Your task to perform on an android device: Is it going to rain tomorrow? Image 0: 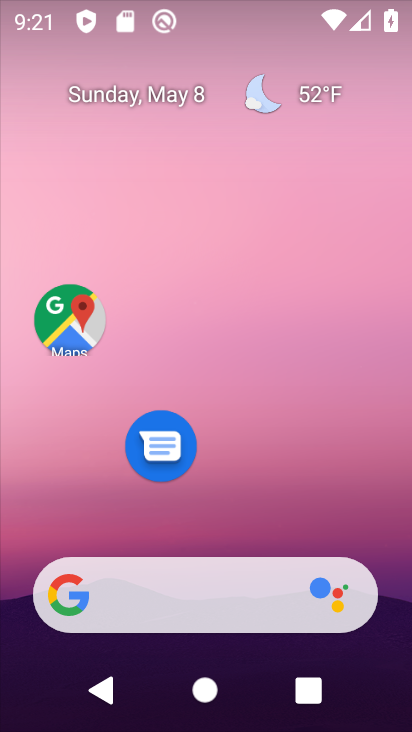
Step 0: drag from (325, 502) to (319, 76)
Your task to perform on an android device: Is it going to rain tomorrow? Image 1: 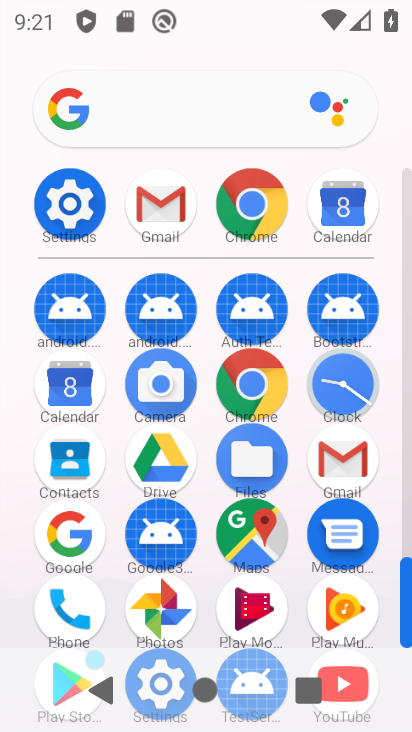
Step 1: drag from (404, 610) to (402, 418)
Your task to perform on an android device: Is it going to rain tomorrow? Image 2: 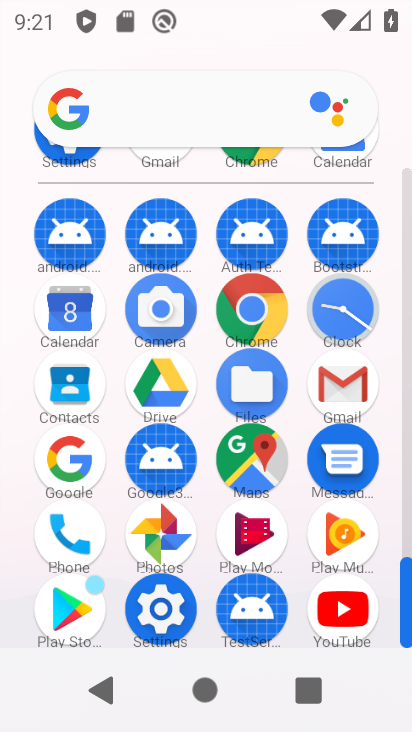
Step 2: click (233, 393)
Your task to perform on an android device: Is it going to rain tomorrow? Image 3: 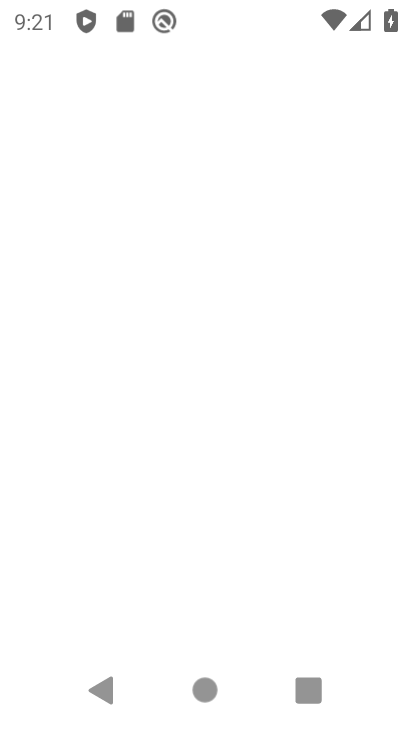
Step 3: press back button
Your task to perform on an android device: Is it going to rain tomorrow? Image 4: 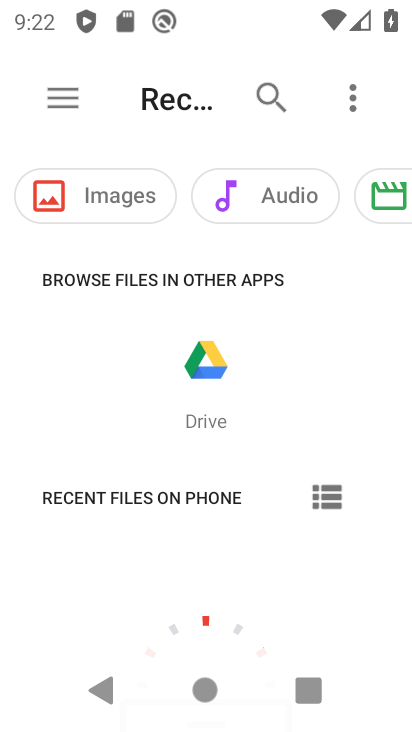
Step 4: press back button
Your task to perform on an android device: Is it going to rain tomorrow? Image 5: 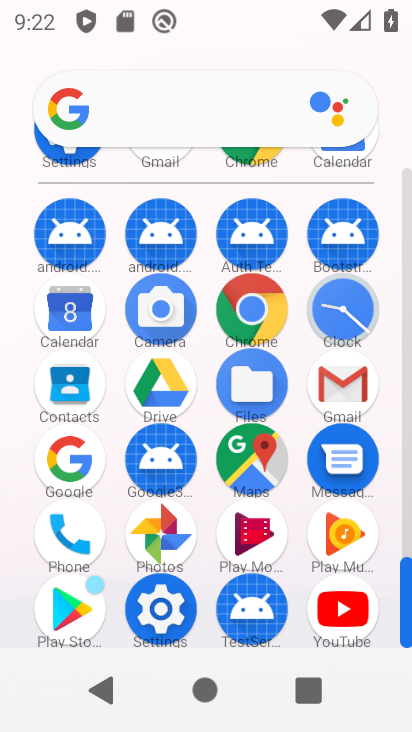
Step 5: click (257, 318)
Your task to perform on an android device: Is it going to rain tomorrow? Image 6: 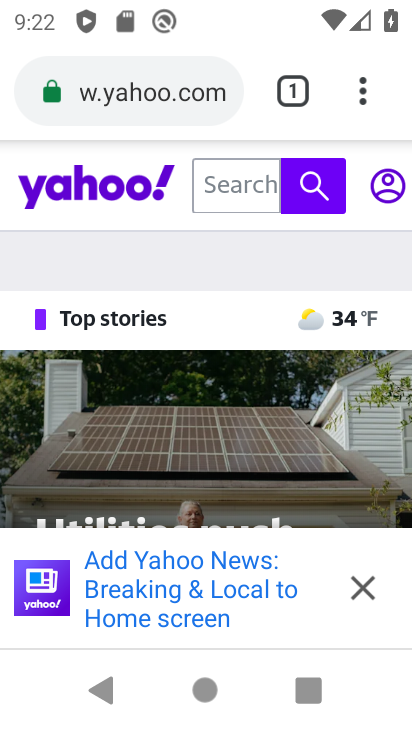
Step 6: click (131, 99)
Your task to perform on an android device: Is it going to rain tomorrow? Image 7: 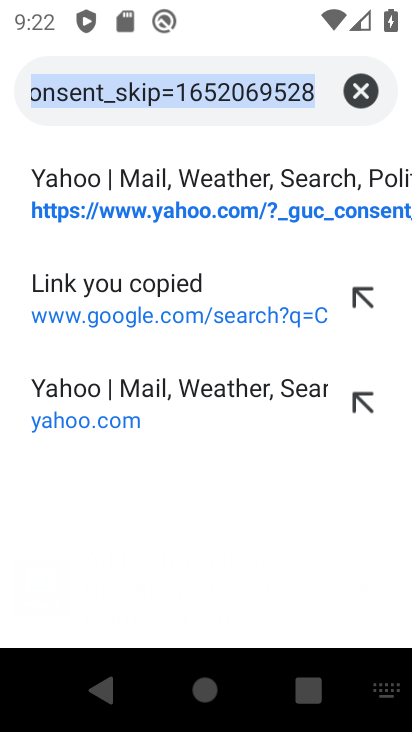
Step 7: click (365, 87)
Your task to perform on an android device: Is it going to rain tomorrow? Image 8: 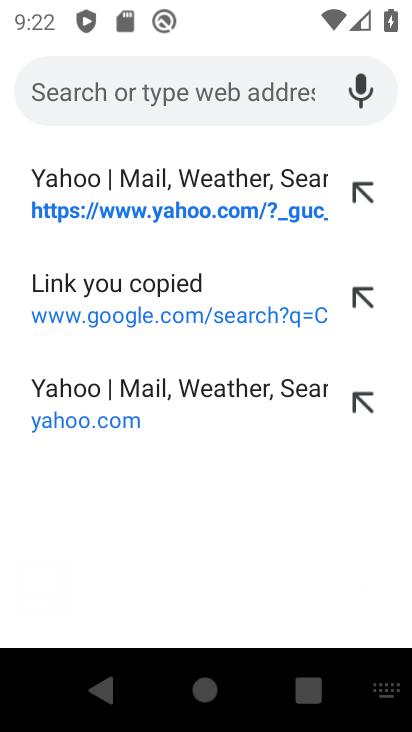
Step 8: type "Is it going to rain tomorrow?"
Your task to perform on an android device: Is it going to rain tomorrow? Image 9: 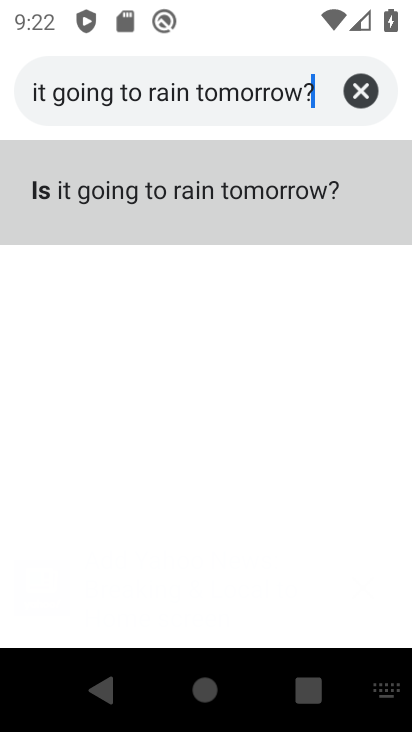
Step 9: click (92, 156)
Your task to perform on an android device: Is it going to rain tomorrow? Image 10: 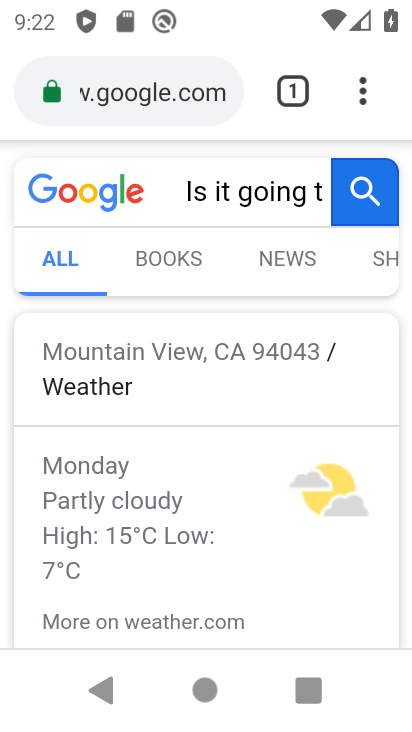
Step 10: task complete